Your task to perform on an android device: uninstall "DoorDash - Dasher" Image 0: 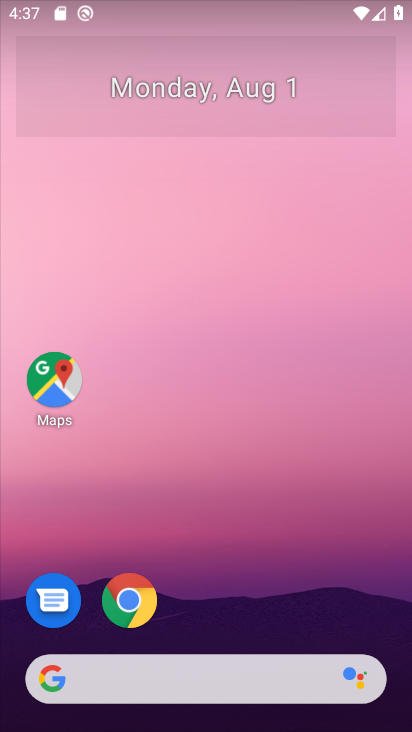
Step 0: drag from (279, 566) to (277, 34)
Your task to perform on an android device: uninstall "DoorDash - Dasher" Image 1: 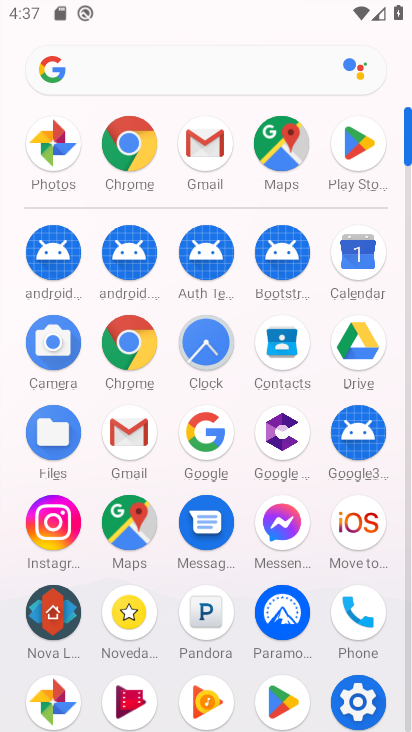
Step 1: click (357, 151)
Your task to perform on an android device: uninstall "DoorDash - Dasher" Image 2: 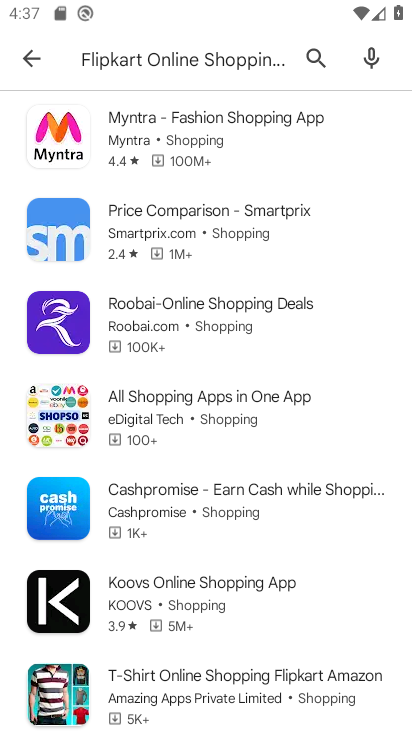
Step 2: click (256, 46)
Your task to perform on an android device: uninstall "DoorDash - Dasher" Image 3: 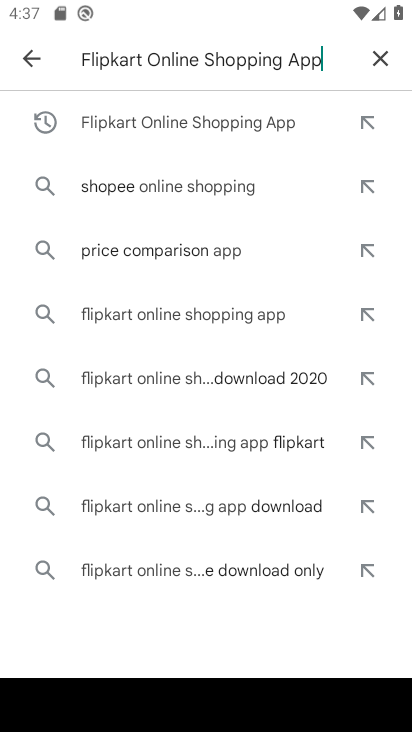
Step 3: click (381, 57)
Your task to perform on an android device: uninstall "DoorDash - Dasher" Image 4: 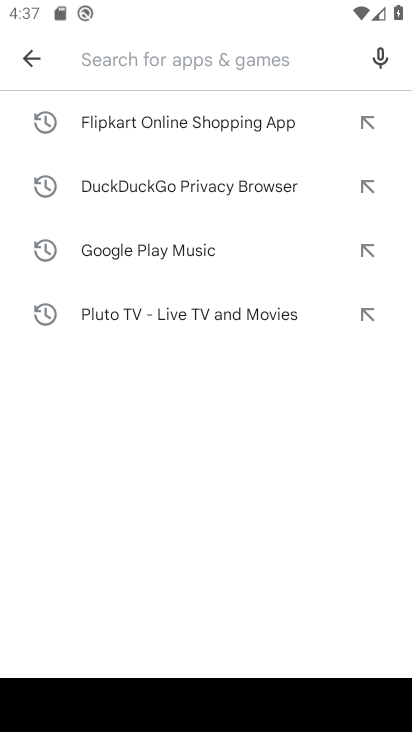
Step 4: type "DoorDash - Dasher"
Your task to perform on an android device: uninstall "DoorDash - Dasher" Image 5: 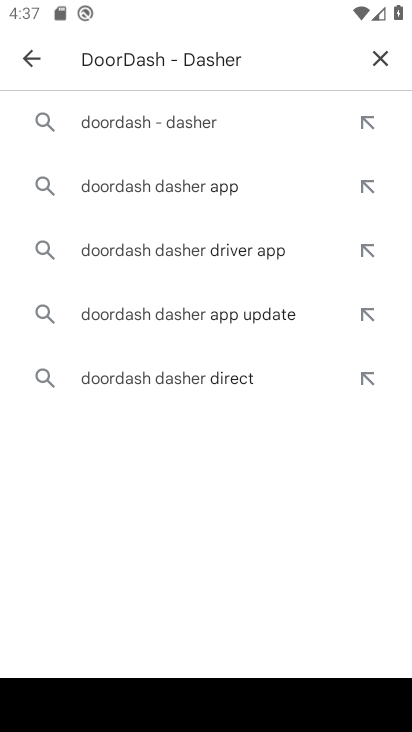
Step 5: press enter
Your task to perform on an android device: uninstall "DoorDash - Dasher" Image 6: 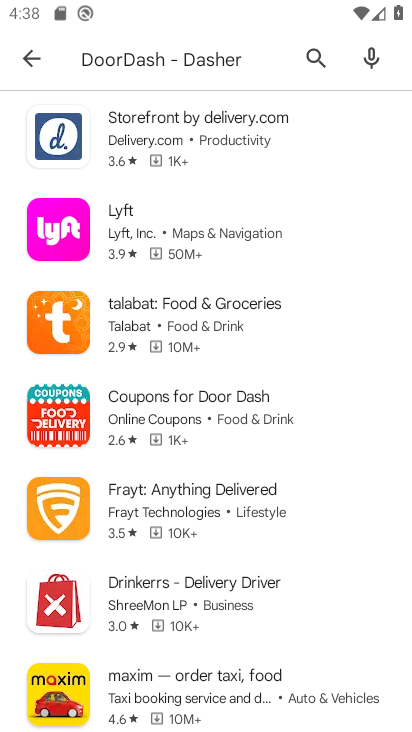
Step 6: task complete